Your task to perform on an android device: Open the phone app and click the voicemail tab. Image 0: 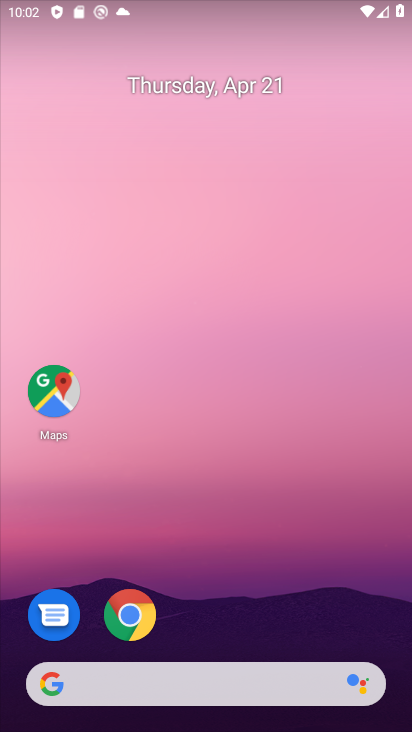
Step 0: drag from (229, 504) to (247, 3)
Your task to perform on an android device: Open the phone app and click the voicemail tab. Image 1: 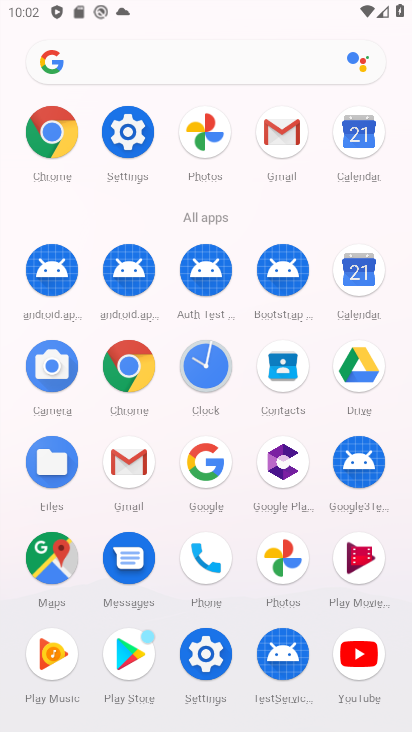
Step 1: click (203, 550)
Your task to perform on an android device: Open the phone app and click the voicemail tab. Image 2: 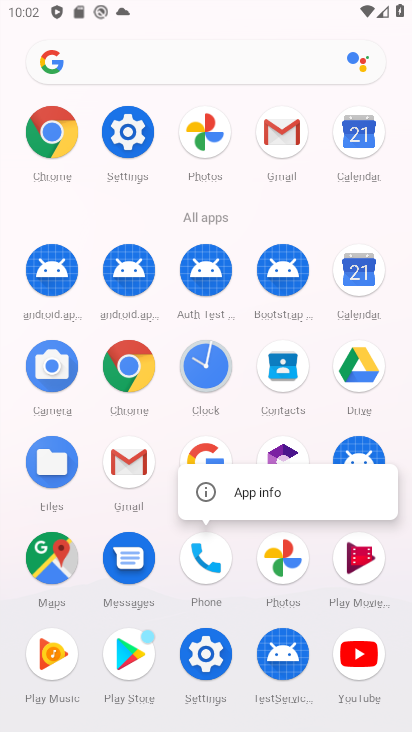
Step 2: click (204, 559)
Your task to perform on an android device: Open the phone app and click the voicemail tab. Image 3: 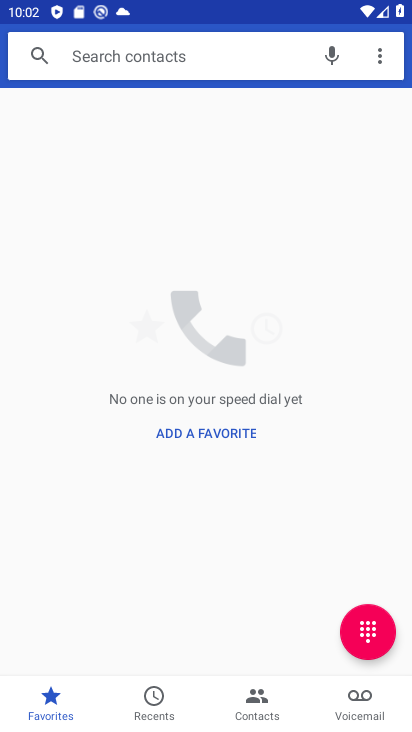
Step 3: click (357, 700)
Your task to perform on an android device: Open the phone app and click the voicemail tab. Image 4: 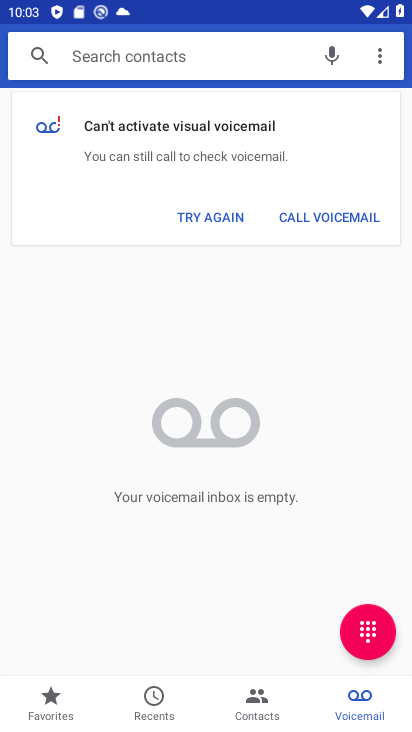
Step 4: task complete